Your task to perform on an android device: Open location settings Image 0: 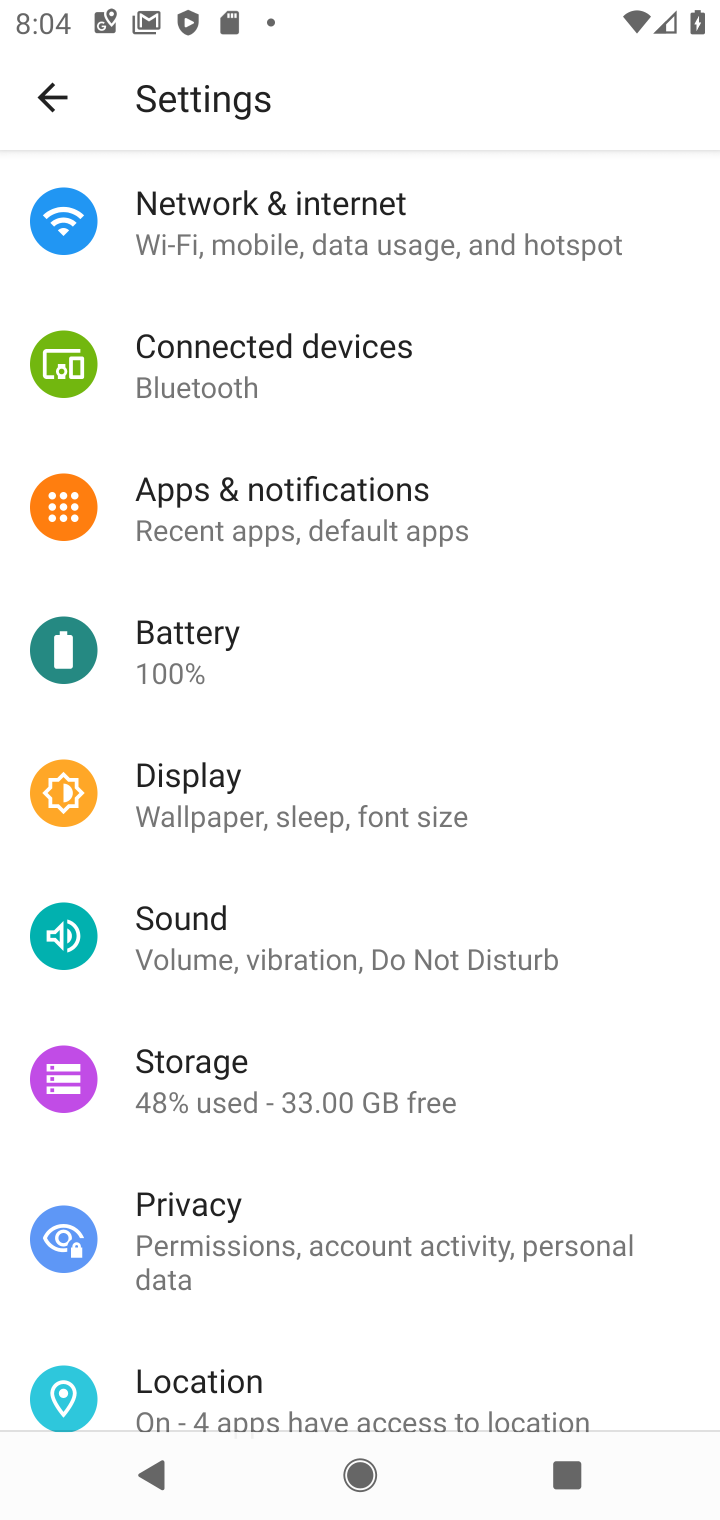
Step 0: click (232, 1389)
Your task to perform on an android device: Open location settings Image 1: 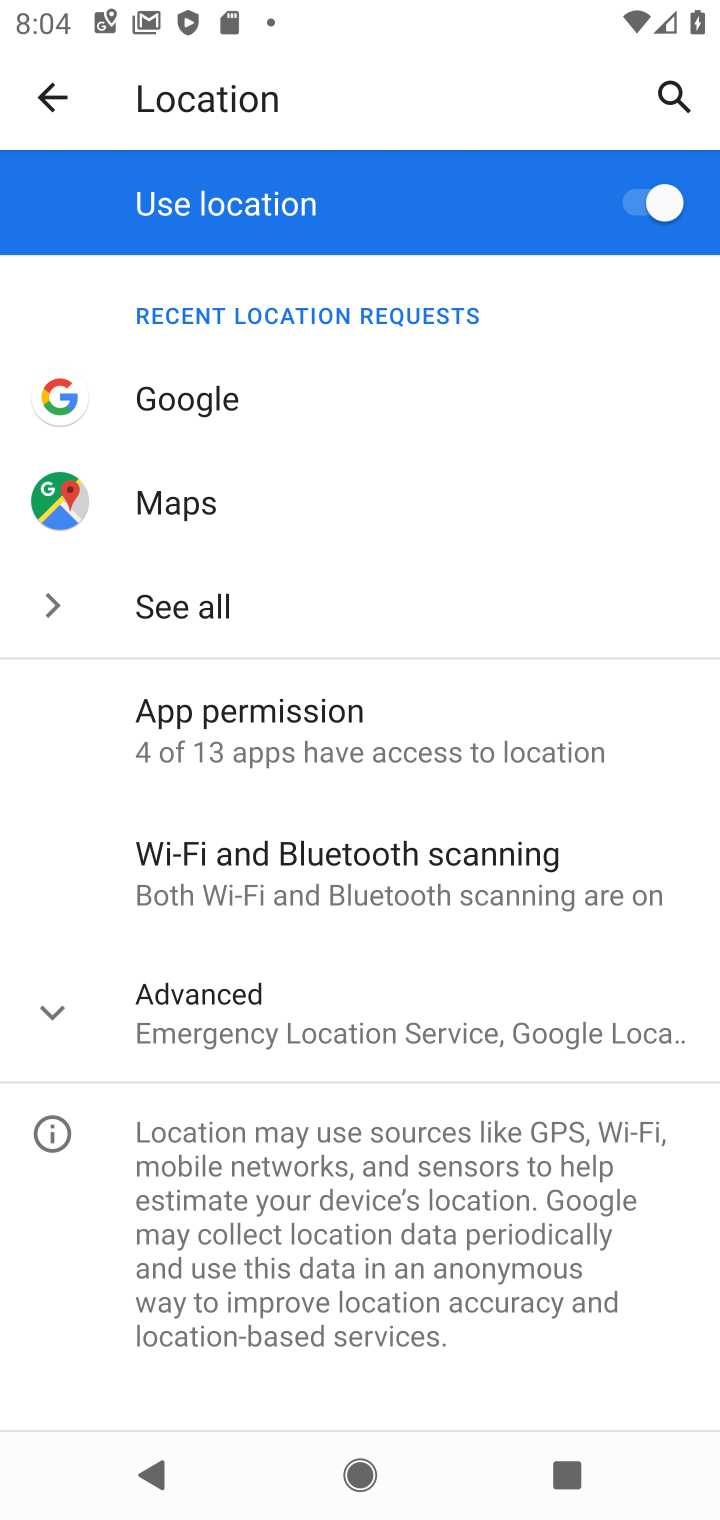
Step 1: click (47, 1012)
Your task to perform on an android device: Open location settings Image 2: 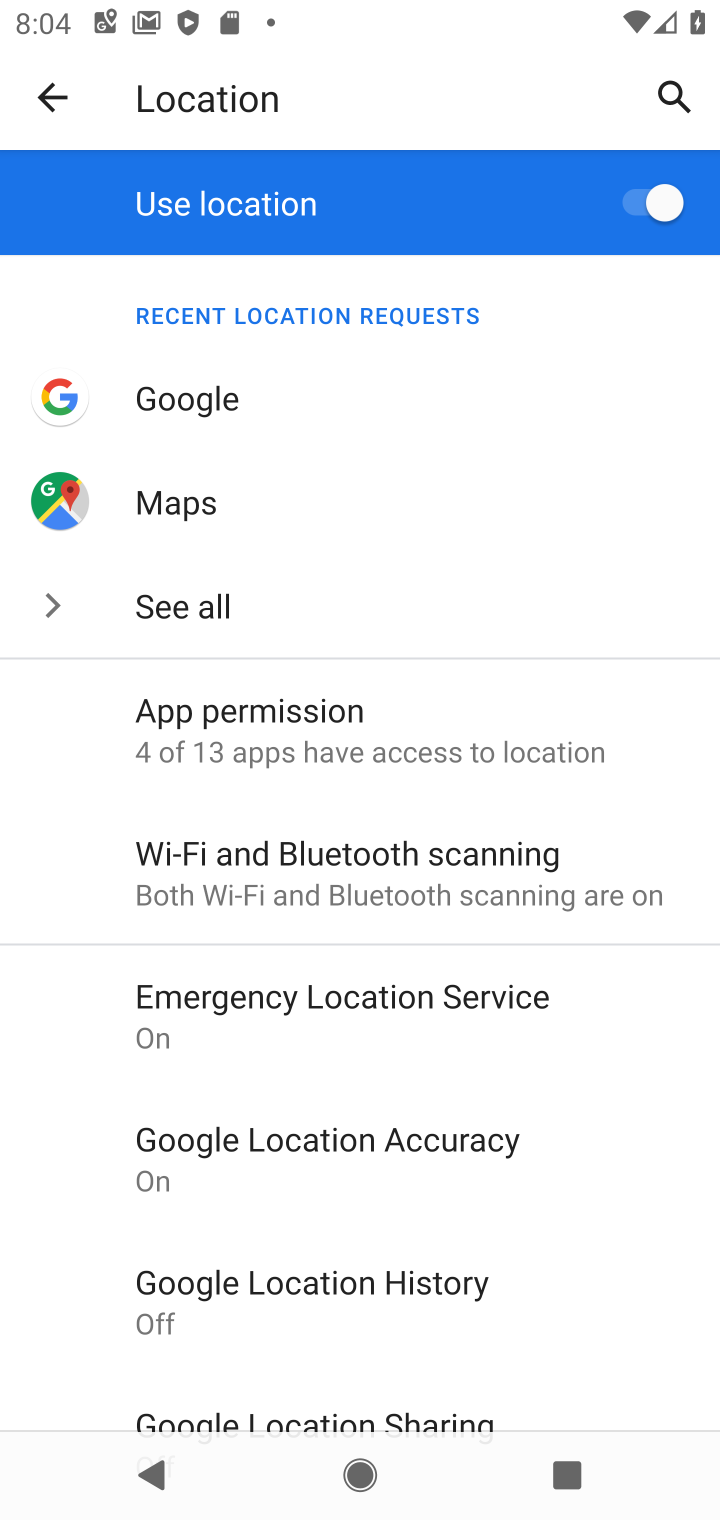
Step 2: task complete